Your task to perform on an android device: toggle airplane mode Image 0: 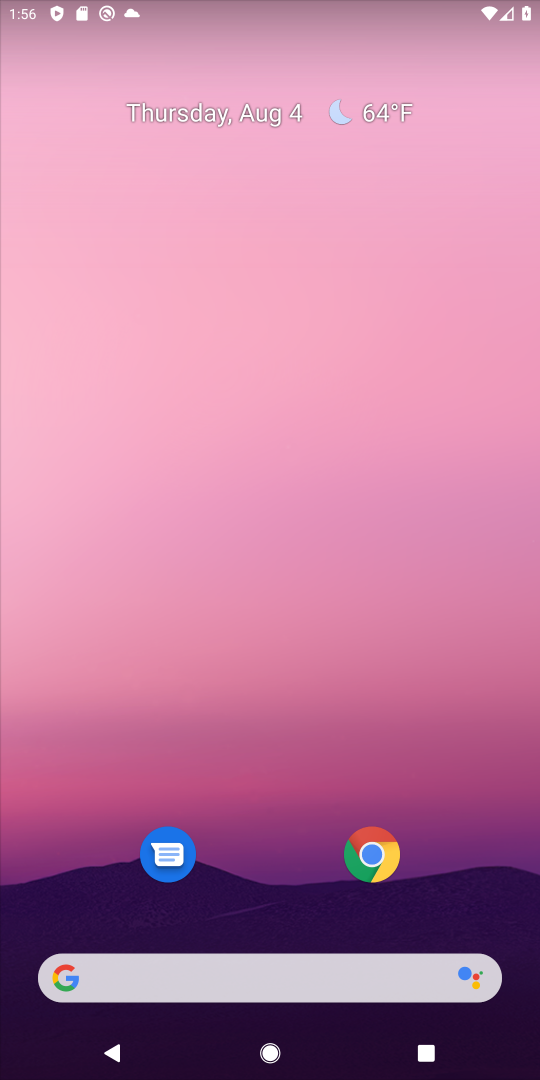
Step 0: drag from (300, 624) to (288, 214)
Your task to perform on an android device: toggle airplane mode Image 1: 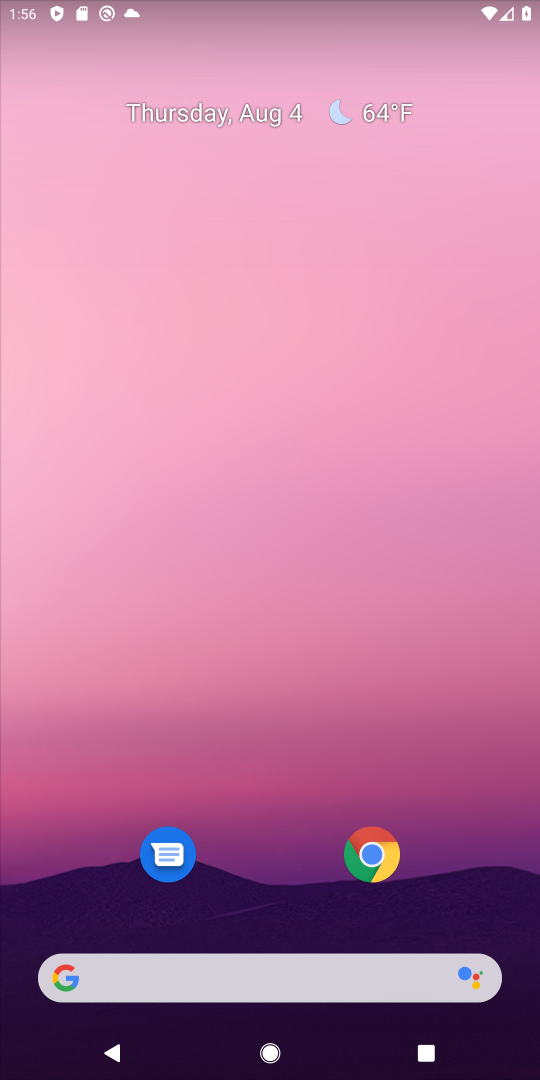
Step 1: drag from (263, 775) to (294, 218)
Your task to perform on an android device: toggle airplane mode Image 2: 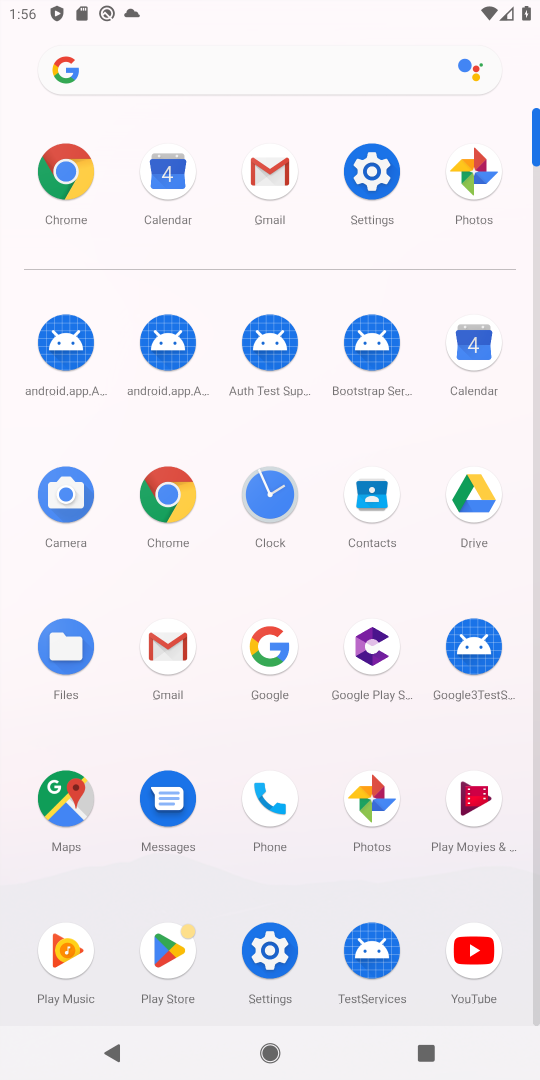
Step 2: click (375, 178)
Your task to perform on an android device: toggle airplane mode Image 3: 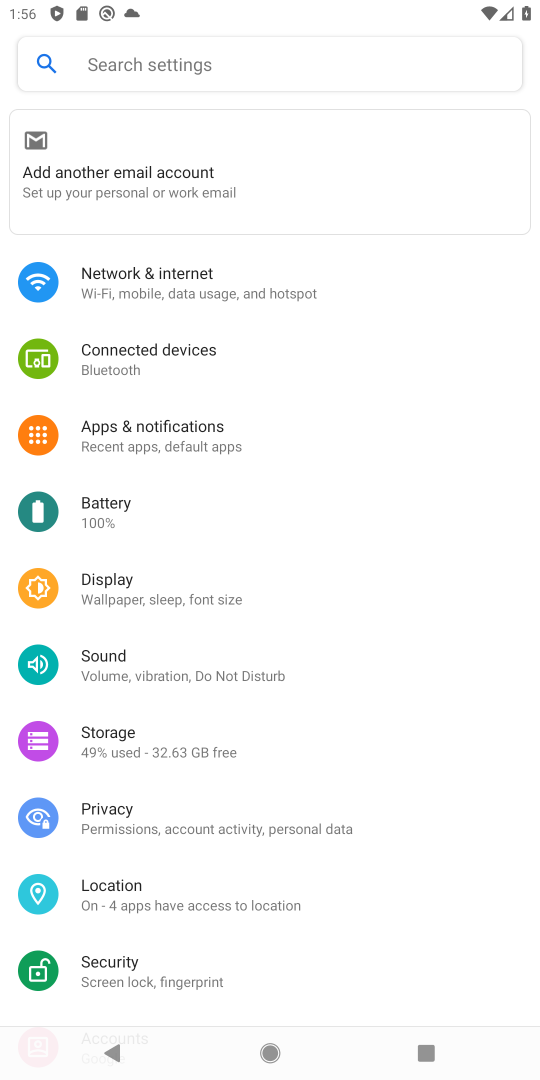
Step 3: task complete